Your task to perform on an android device: Search for sushi restaurants on Maps Image 0: 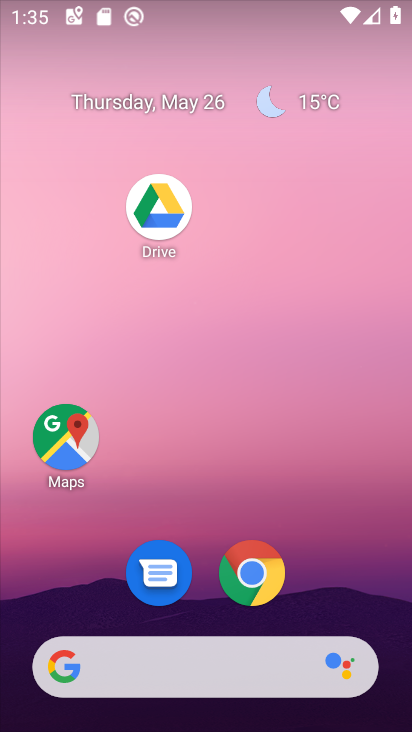
Step 0: click (77, 456)
Your task to perform on an android device: Search for sushi restaurants on Maps Image 1: 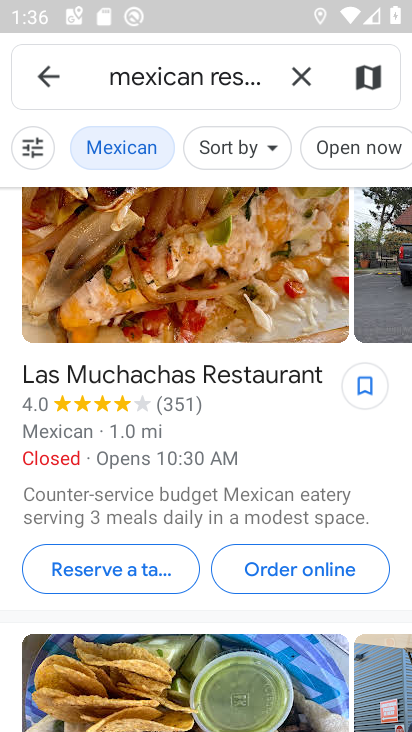
Step 1: click (304, 72)
Your task to perform on an android device: Search for sushi restaurants on Maps Image 2: 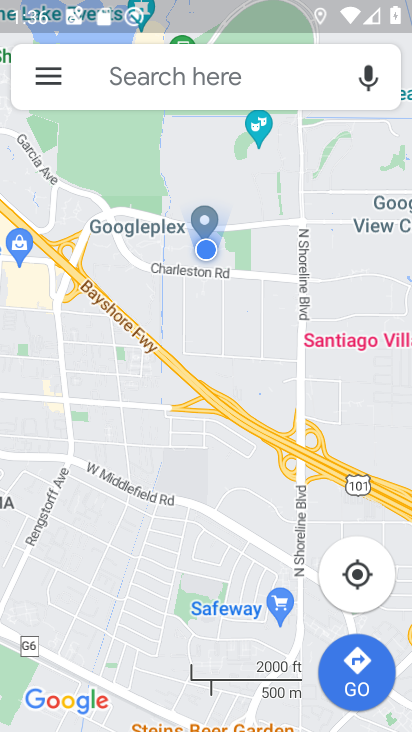
Step 2: click (234, 79)
Your task to perform on an android device: Search for sushi restaurants on Maps Image 3: 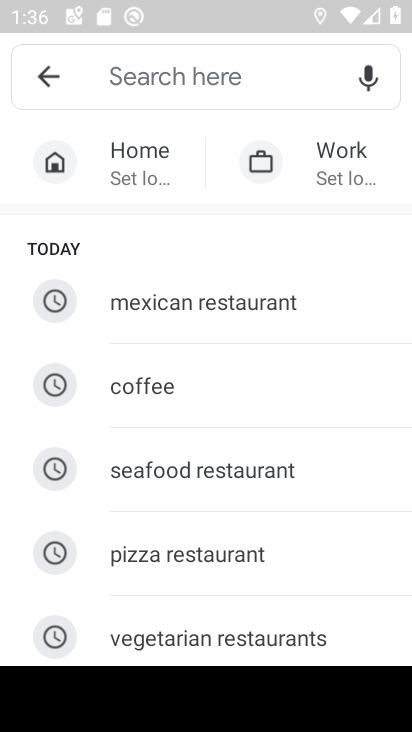
Step 3: drag from (202, 557) to (198, 320)
Your task to perform on an android device: Search for sushi restaurants on Maps Image 4: 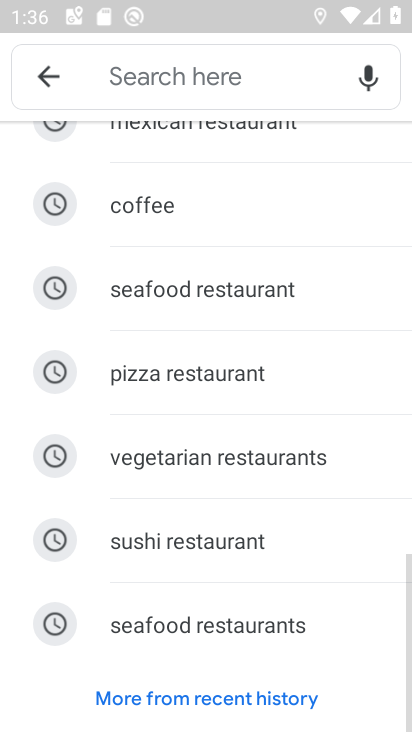
Step 4: click (204, 531)
Your task to perform on an android device: Search for sushi restaurants on Maps Image 5: 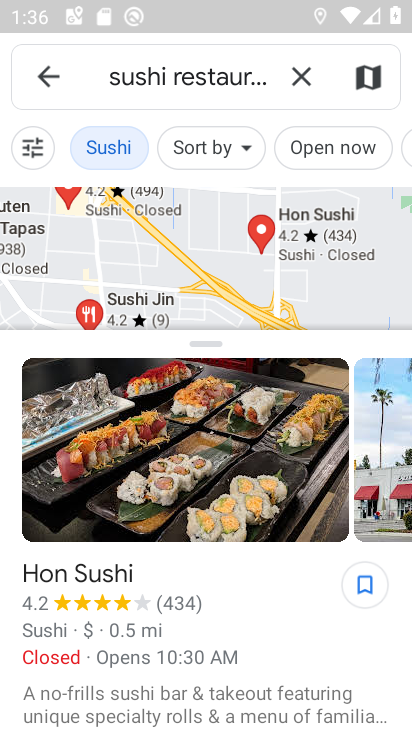
Step 5: task complete